Your task to perform on an android device: Open calendar and show me the third week of next month Image 0: 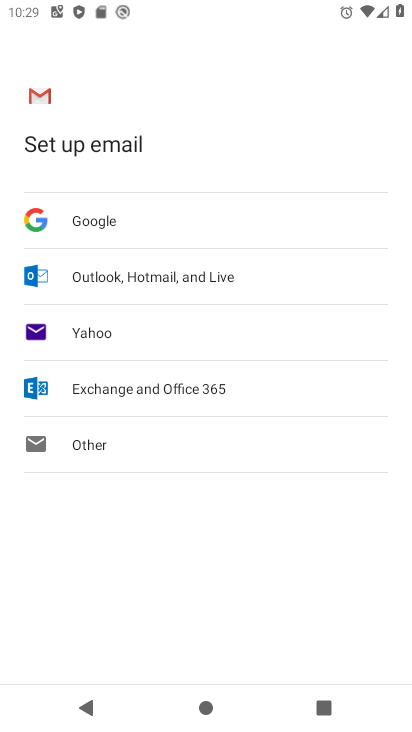
Step 0: press home button
Your task to perform on an android device: Open calendar and show me the third week of next month Image 1: 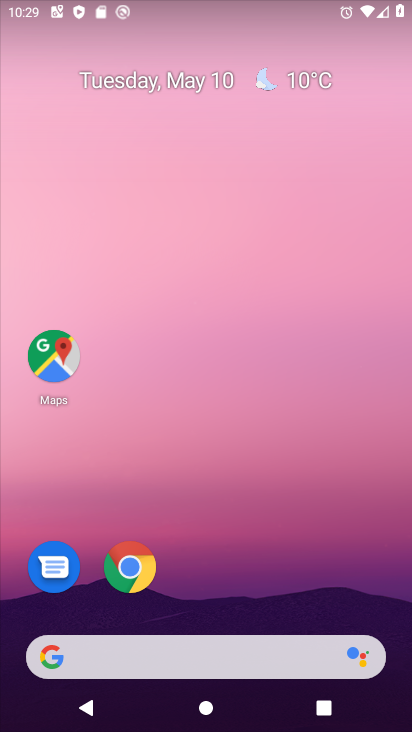
Step 1: drag from (319, 574) to (308, 3)
Your task to perform on an android device: Open calendar and show me the third week of next month Image 2: 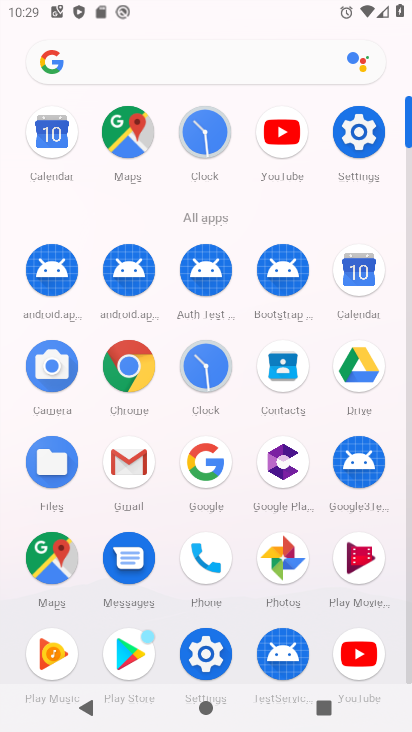
Step 2: click (351, 282)
Your task to perform on an android device: Open calendar and show me the third week of next month Image 3: 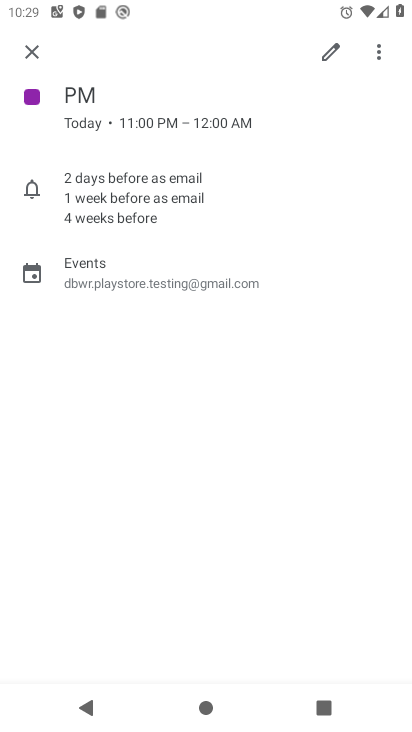
Step 3: click (36, 51)
Your task to perform on an android device: Open calendar and show me the third week of next month Image 4: 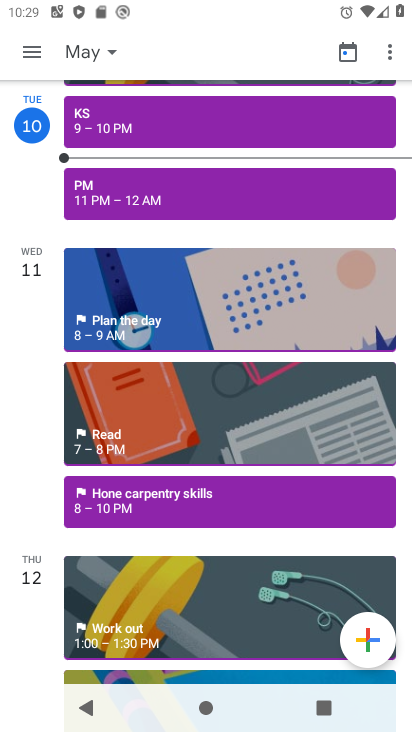
Step 4: click (123, 65)
Your task to perform on an android device: Open calendar and show me the third week of next month Image 5: 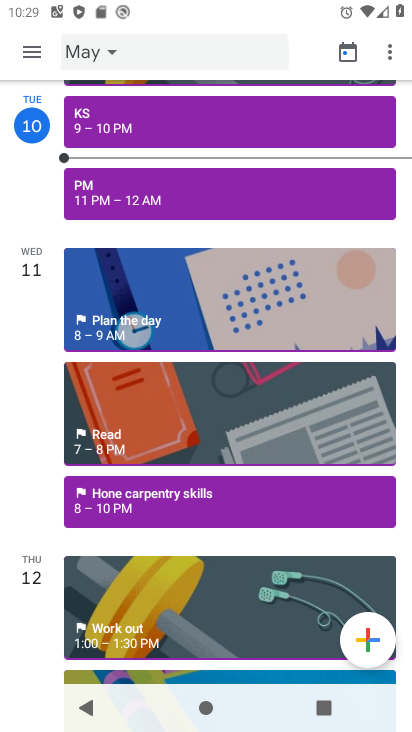
Step 5: click (123, 65)
Your task to perform on an android device: Open calendar and show me the third week of next month Image 6: 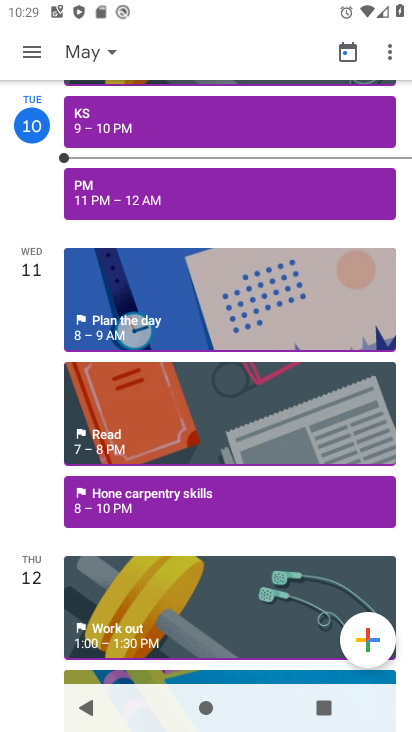
Step 6: click (129, 64)
Your task to perform on an android device: Open calendar and show me the third week of next month Image 7: 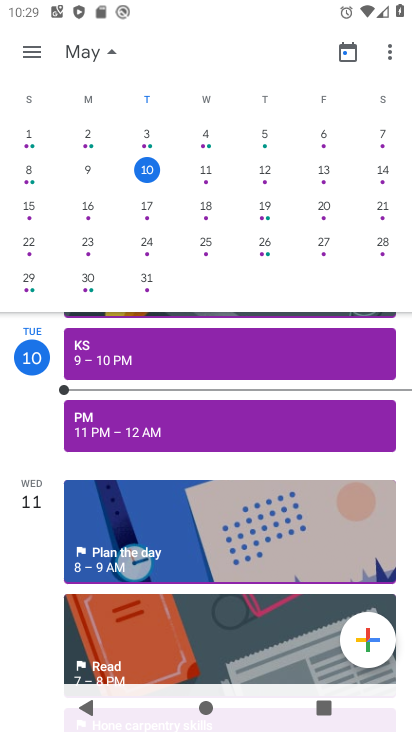
Step 7: drag from (324, 201) to (1, 149)
Your task to perform on an android device: Open calendar and show me the third week of next month Image 8: 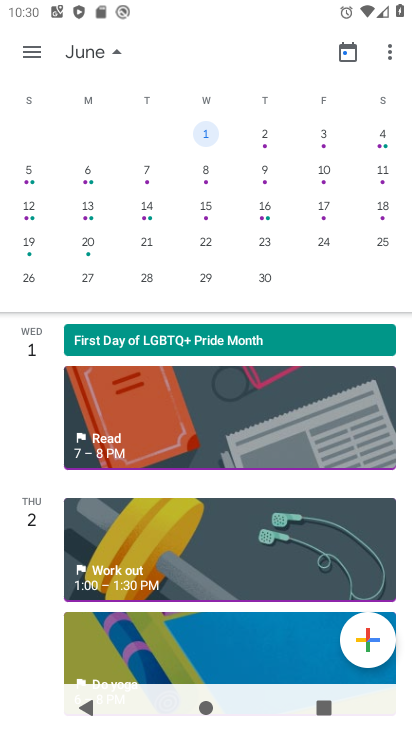
Step 8: click (38, 57)
Your task to perform on an android device: Open calendar and show me the third week of next month Image 9: 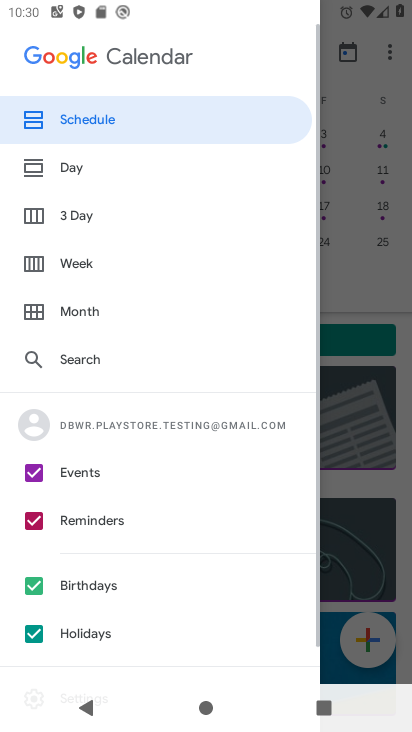
Step 9: click (64, 261)
Your task to perform on an android device: Open calendar and show me the third week of next month Image 10: 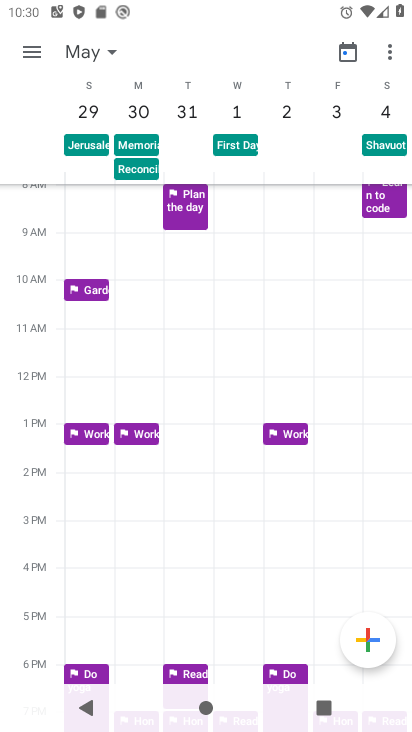
Step 10: task complete